Your task to perform on an android device: delete browsing data in the chrome app Image 0: 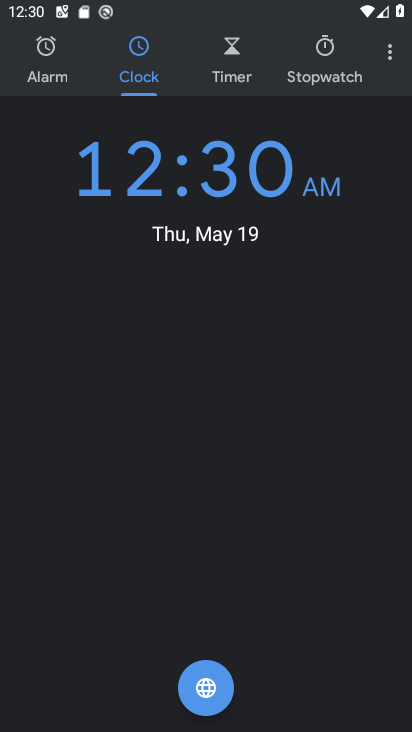
Step 0: press home button
Your task to perform on an android device: delete browsing data in the chrome app Image 1: 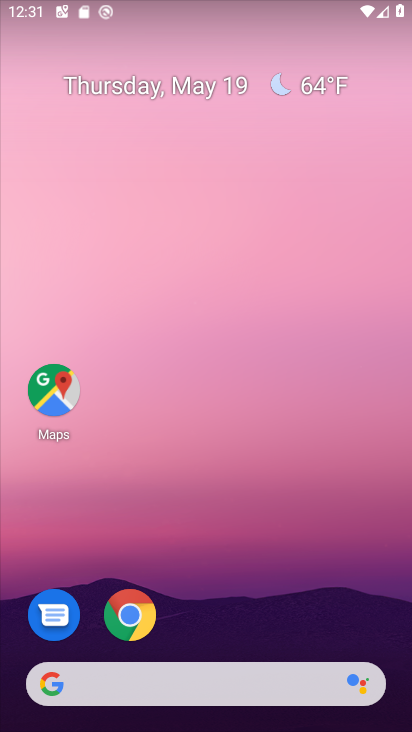
Step 1: drag from (166, 708) to (198, 171)
Your task to perform on an android device: delete browsing data in the chrome app Image 2: 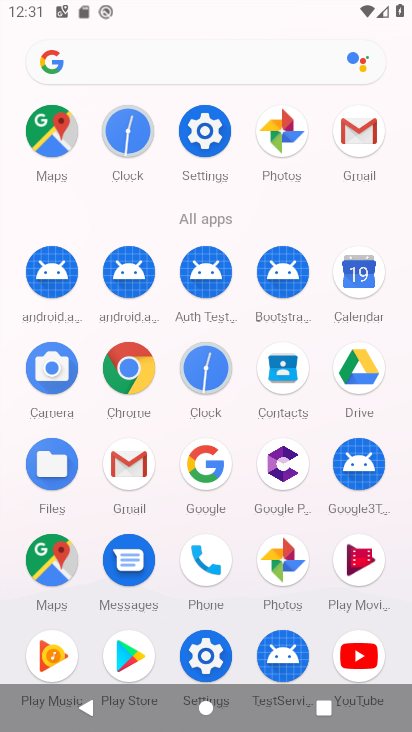
Step 2: click (117, 377)
Your task to perform on an android device: delete browsing data in the chrome app Image 3: 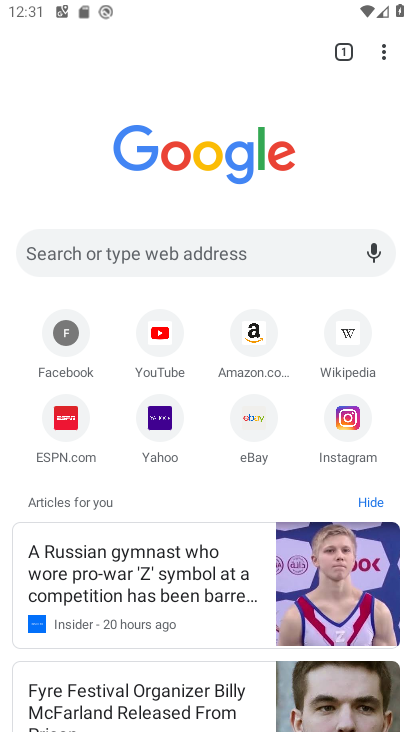
Step 3: click (379, 58)
Your task to perform on an android device: delete browsing data in the chrome app Image 4: 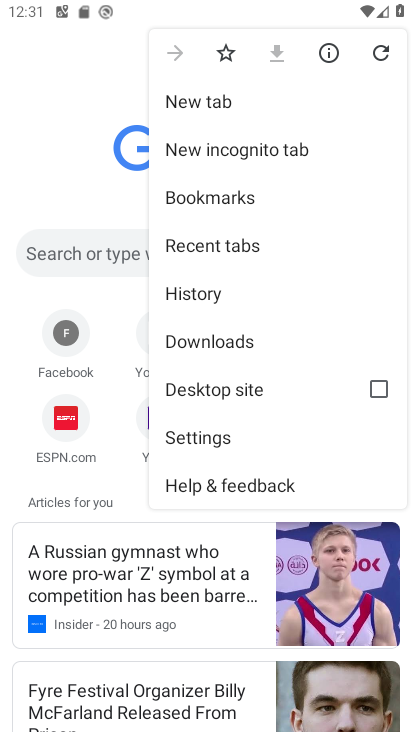
Step 4: click (218, 292)
Your task to perform on an android device: delete browsing data in the chrome app Image 5: 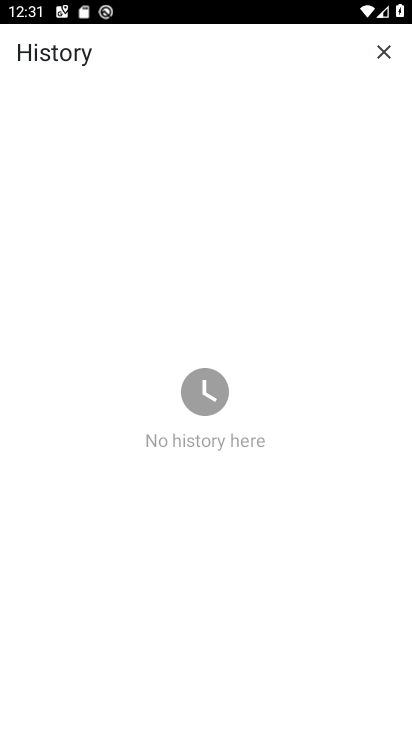
Step 5: task complete